Your task to perform on an android device: turn off wifi Image 0: 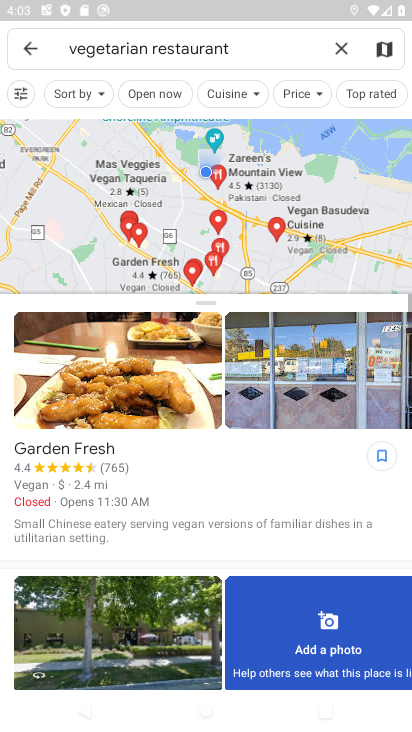
Step 0: press home button
Your task to perform on an android device: turn off wifi Image 1: 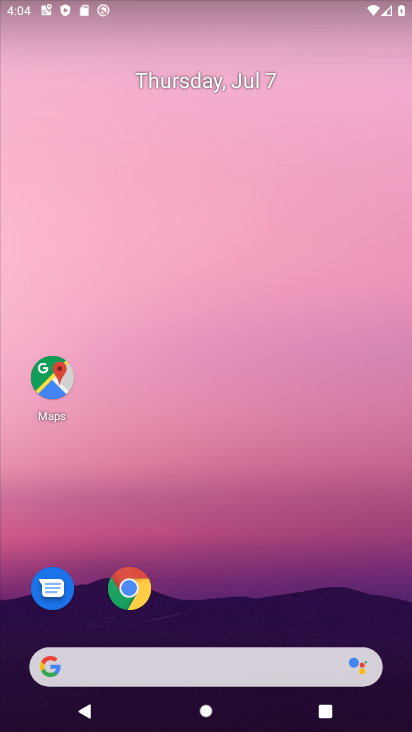
Step 1: drag from (217, 8) to (291, 608)
Your task to perform on an android device: turn off wifi Image 2: 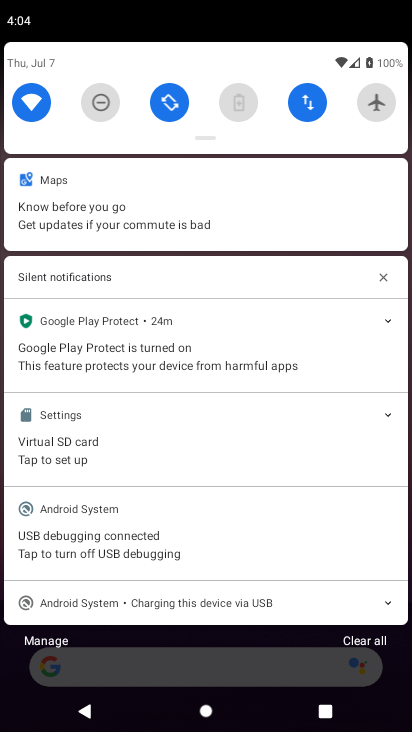
Step 2: click (24, 97)
Your task to perform on an android device: turn off wifi Image 3: 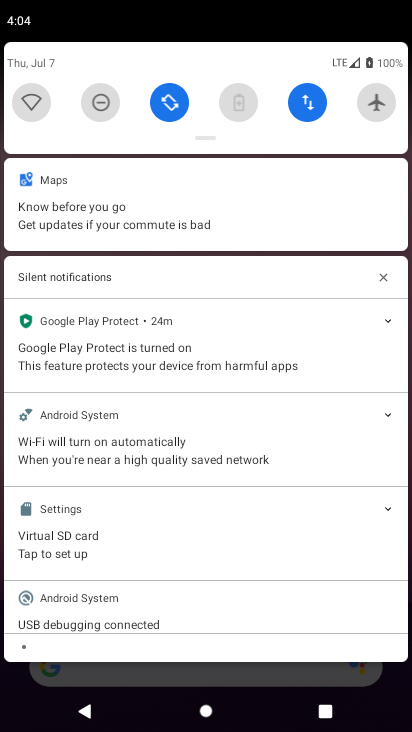
Step 3: task complete